Your task to perform on an android device: What is the recent news? Image 0: 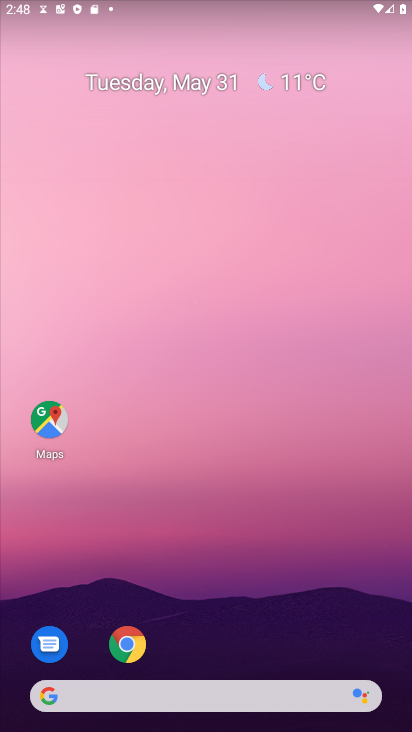
Step 0: drag from (242, 628) to (178, 312)
Your task to perform on an android device: What is the recent news? Image 1: 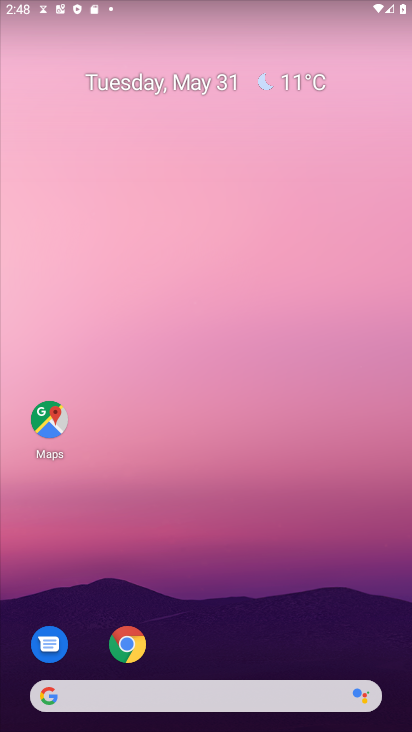
Step 1: click (205, 695)
Your task to perform on an android device: What is the recent news? Image 2: 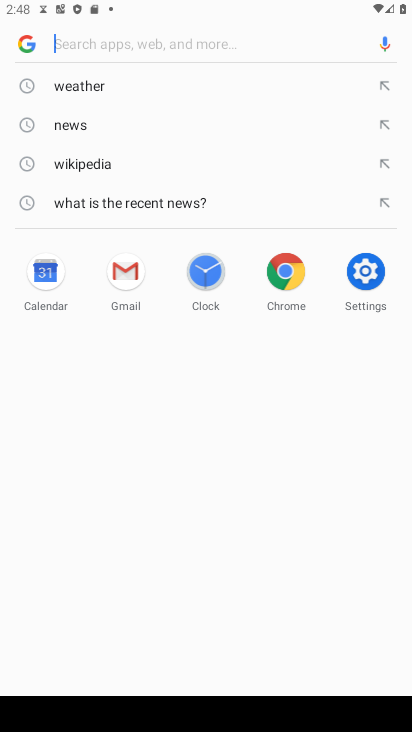
Step 2: type "recent news"
Your task to perform on an android device: What is the recent news? Image 3: 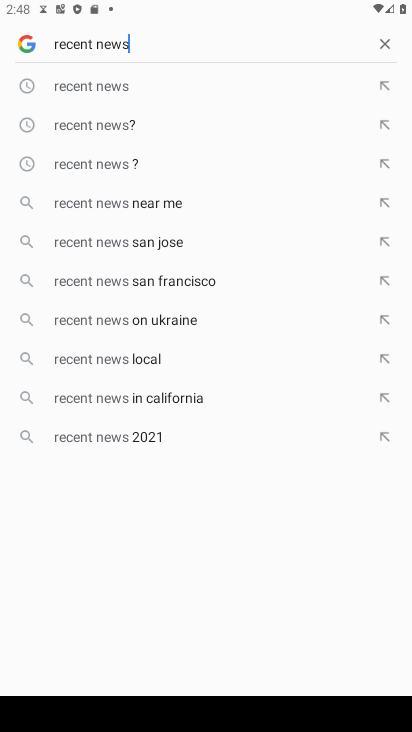
Step 3: click (115, 89)
Your task to perform on an android device: What is the recent news? Image 4: 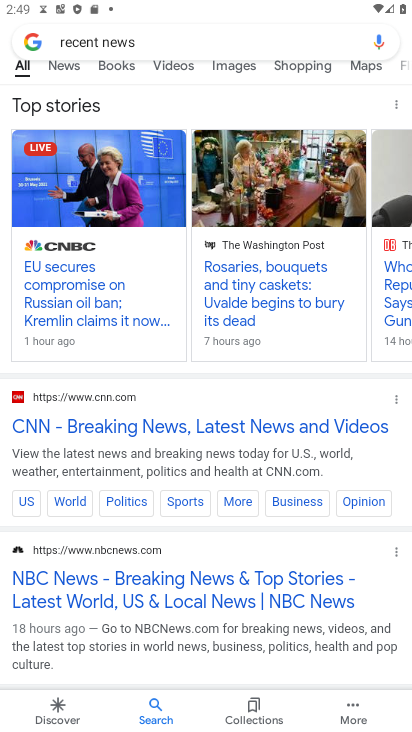
Step 4: task complete